Your task to perform on an android device: Open the web browser Image 0: 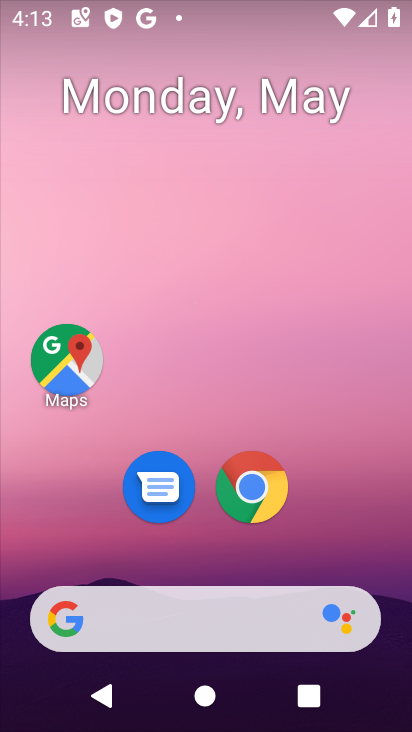
Step 0: click (253, 484)
Your task to perform on an android device: Open the web browser Image 1: 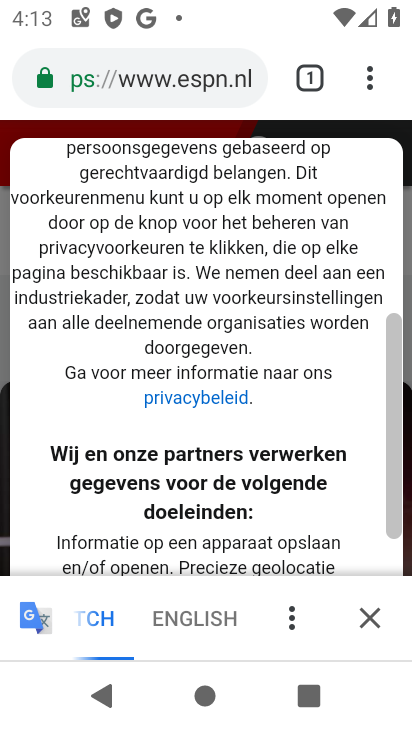
Step 1: task complete